Your task to perform on an android device: turn off location history Image 0: 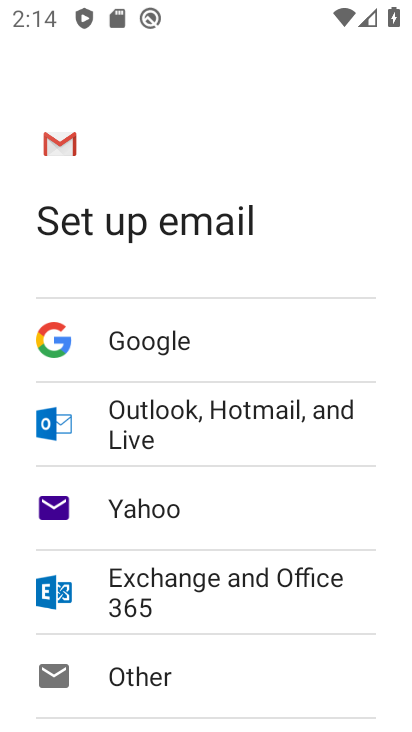
Step 0: press home button
Your task to perform on an android device: turn off location history Image 1: 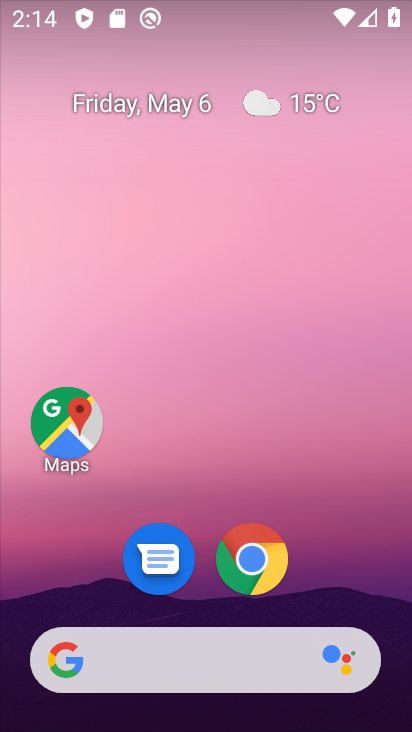
Step 1: drag from (322, 560) to (296, 164)
Your task to perform on an android device: turn off location history Image 2: 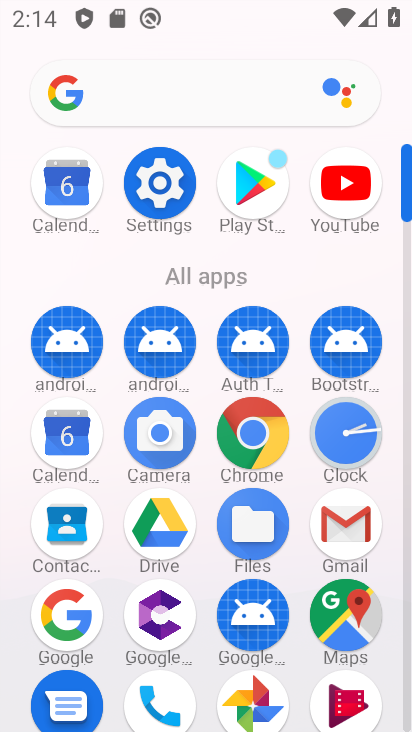
Step 2: click (149, 209)
Your task to perform on an android device: turn off location history Image 3: 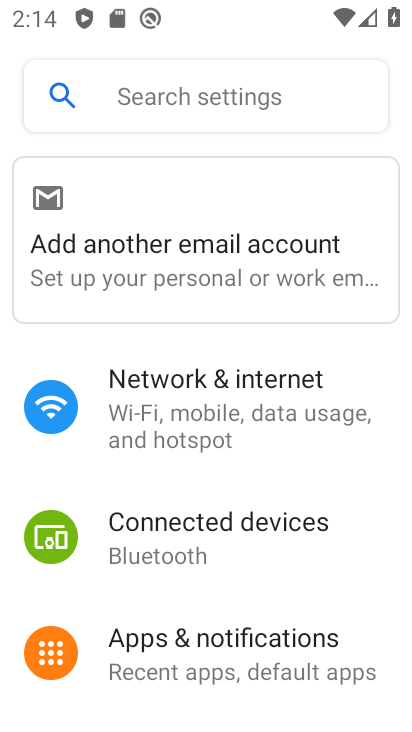
Step 3: drag from (173, 600) to (218, 391)
Your task to perform on an android device: turn off location history Image 4: 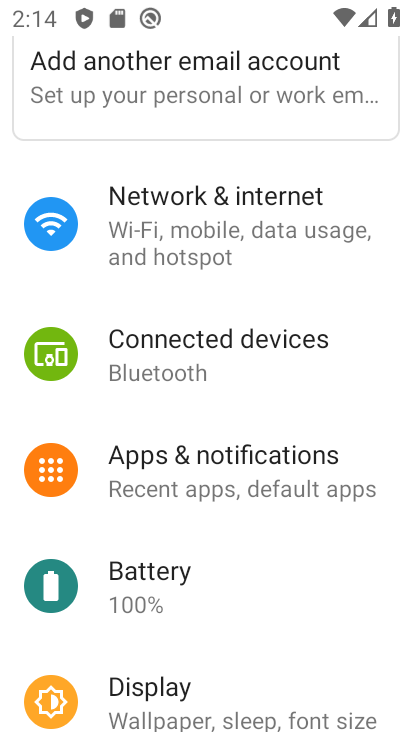
Step 4: drag from (233, 587) to (247, 490)
Your task to perform on an android device: turn off location history Image 5: 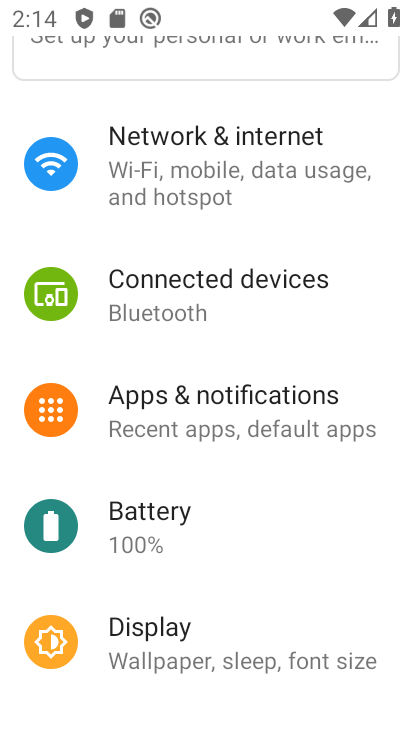
Step 5: click (247, 485)
Your task to perform on an android device: turn off location history Image 6: 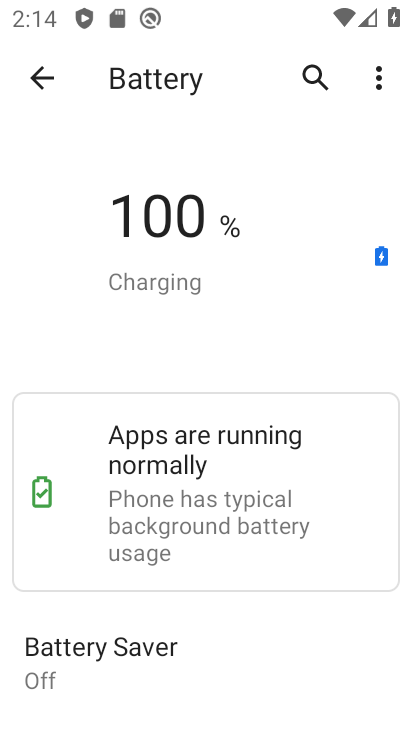
Step 6: click (33, 78)
Your task to perform on an android device: turn off location history Image 7: 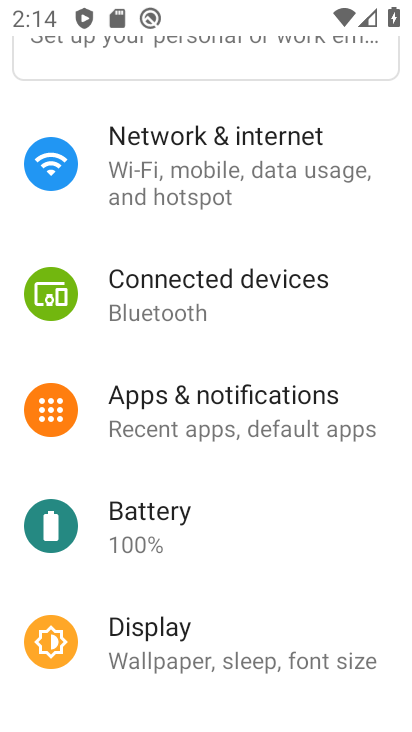
Step 7: drag from (167, 565) to (216, 300)
Your task to perform on an android device: turn off location history Image 8: 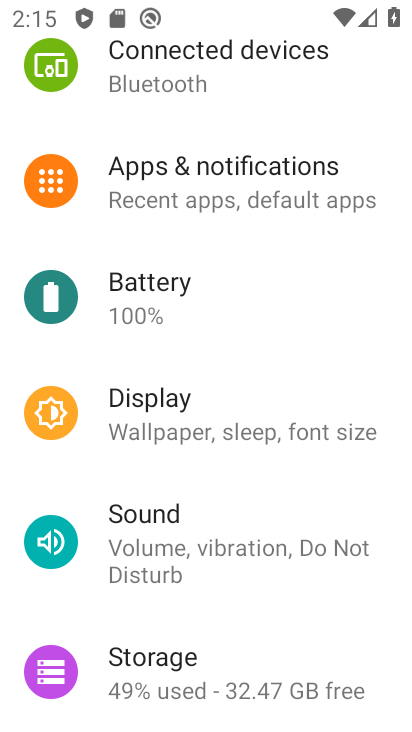
Step 8: drag from (212, 569) to (238, 358)
Your task to perform on an android device: turn off location history Image 9: 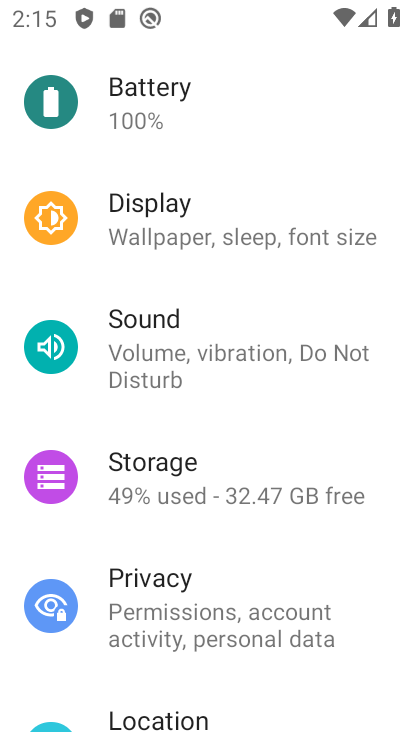
Step 9: drag from (159, 658) to (201, 419)
Your task to perform on an android device: turn off location history Image 10: 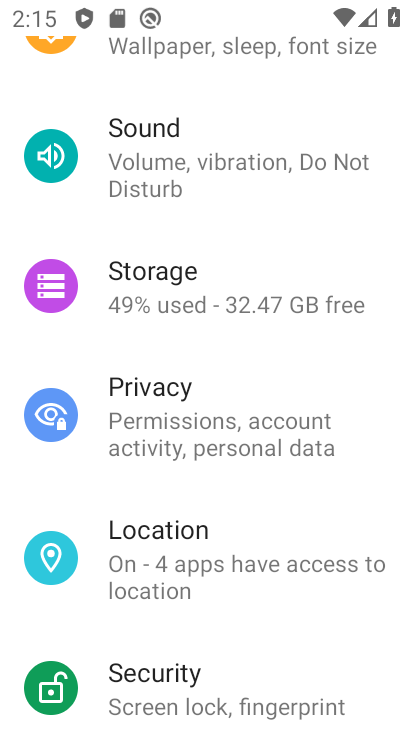
Step 10: click (162, 570)
Your task to perform on an android device: turn off location history Image 11: 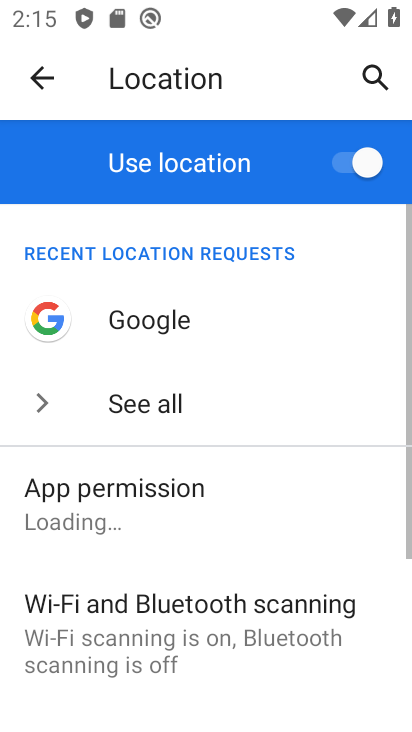
Step 11: drag from (181, 622) to (215, 421)
Your task to perform on an android device: turn off location history Image 12: 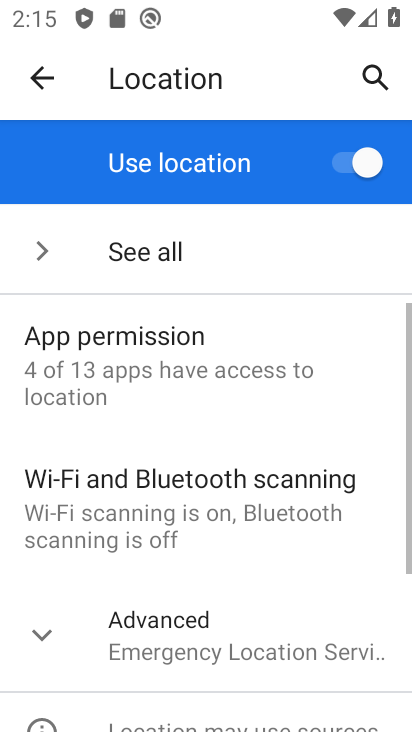
Step 12: click (235, 594)
Your task to perform on an android device: turn off location history Image 13: 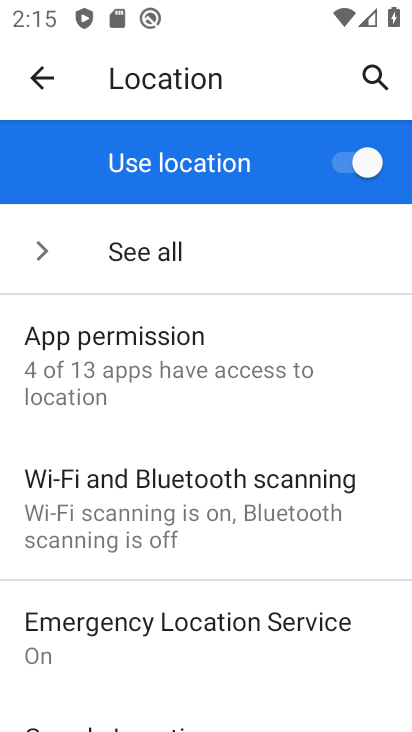
Step 13: drag from (212, 689) to (236, 410)
Your task to perform on an android device: turn off location history Image 14: 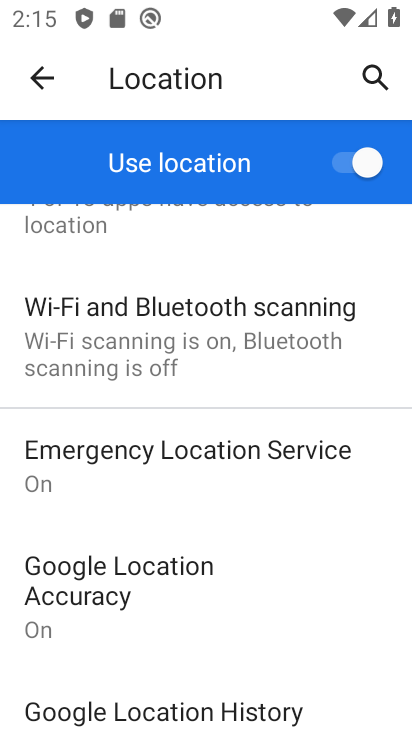
Step 14: click (150, 704)
Your task to perform on an android device: turn off location history Image 15: 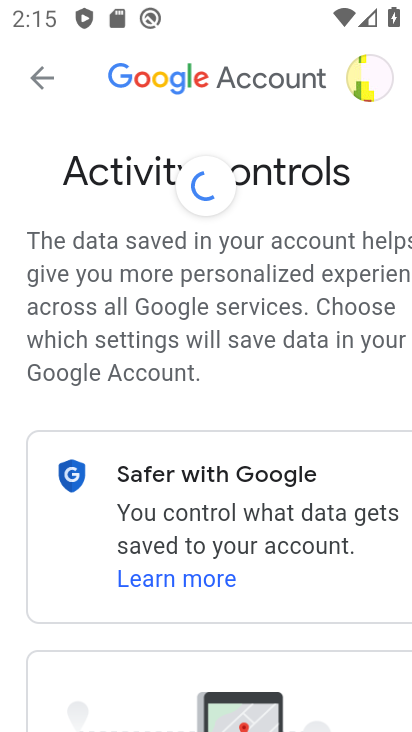
Step 15: task complete